Your task to perform on an android device: uninstall "Viber Messenger" Image 0: 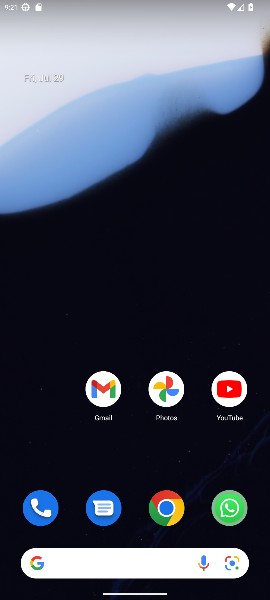
Step 0: drag from (168, 479) to (189, 69)
Your task to perform on an android device: uninstall "Viber Messenger" Image 1: 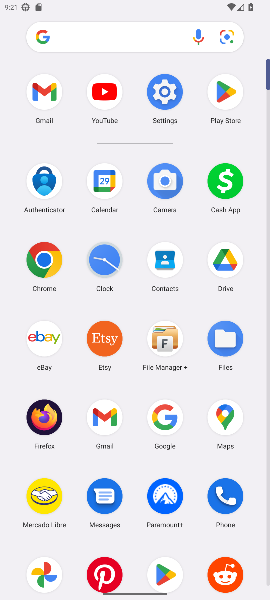
Step 1: click (220, 91)
Your task to perform on an android device: uninstall "Viber Messenger" Image 2: 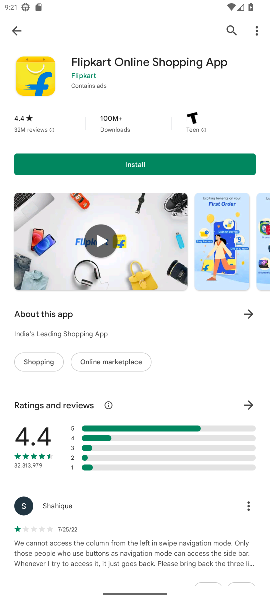
Step 2: click (230, 26)
Your task to perform on an android device: uninstall "Viber Messenger" Image 3: 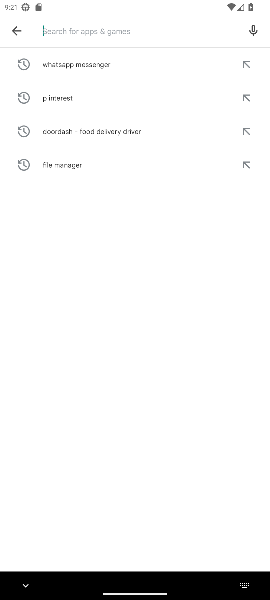
Step 3: type "viber messenger"
Your task to perform on an android device: uninstall "Viber Messenger" Image 4: 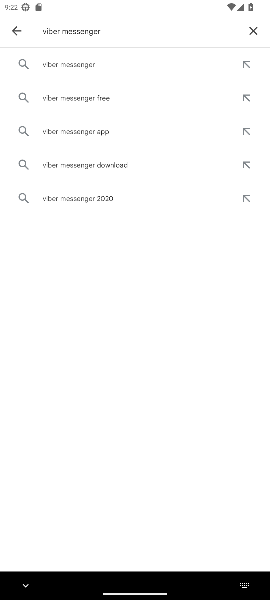
Step 4: click (78, 59)
Your task to perform on an android device: uninstall "Viber Messenger" Image 5: 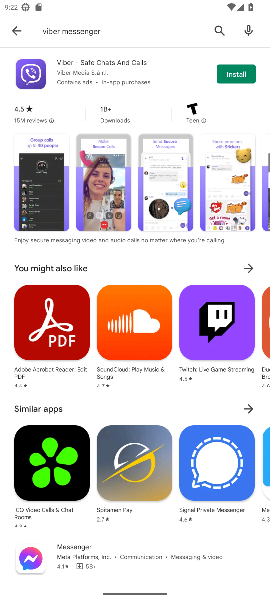
Step 5: task complete